Your task to perform on an android device: Open Wikipedia Image 0: 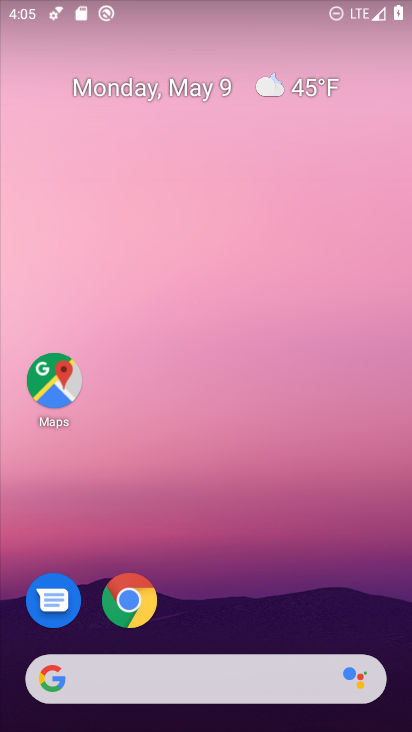
Step 0: drag from (234, 559) to (307, 99)
Your task to perform on an android device: Open Wikipedia Image 1: 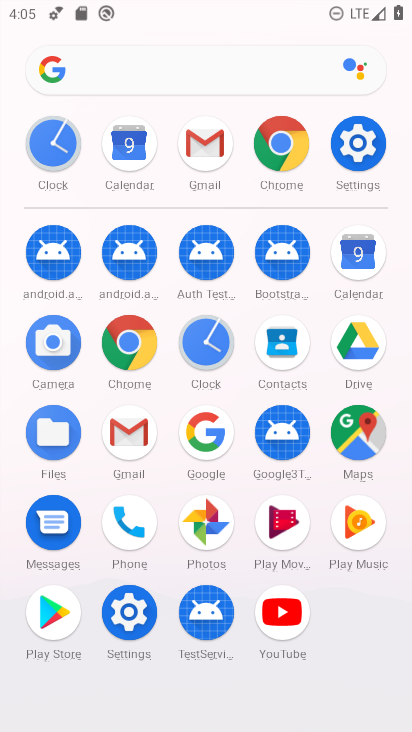
Step 1: click (125, 363)
Your task to perform on an android device: Open Wikipedia Image 2: 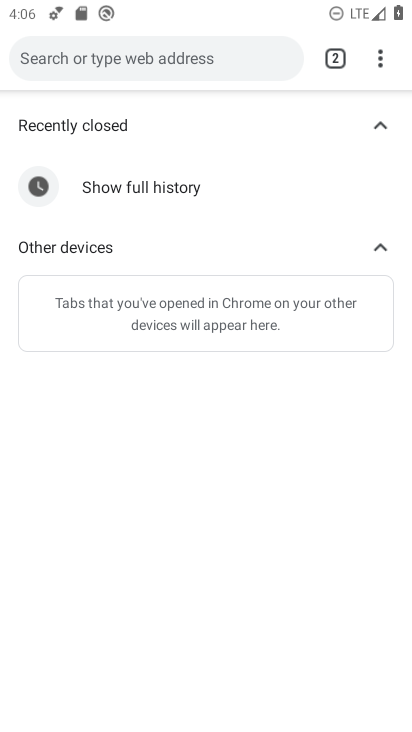
Step 2: click (222, 52)
Your task to perform on an android device: Open Wikipedia Image 3: 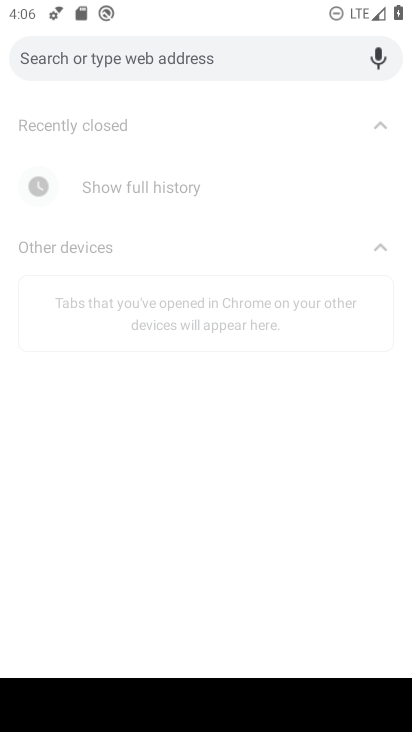
Step 3: type "wikipedia.org"
Your task to perform on an android device: Open Wikipedia Image 4: 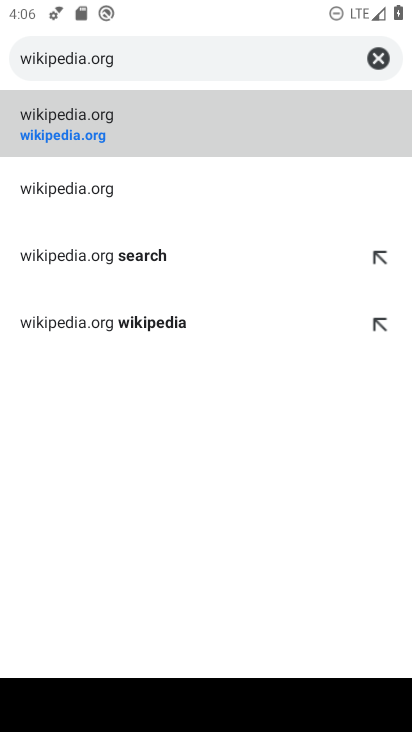
Step 4: click (104, 204)
Your task to perform on an android device: Open Wikipedia Image 5: 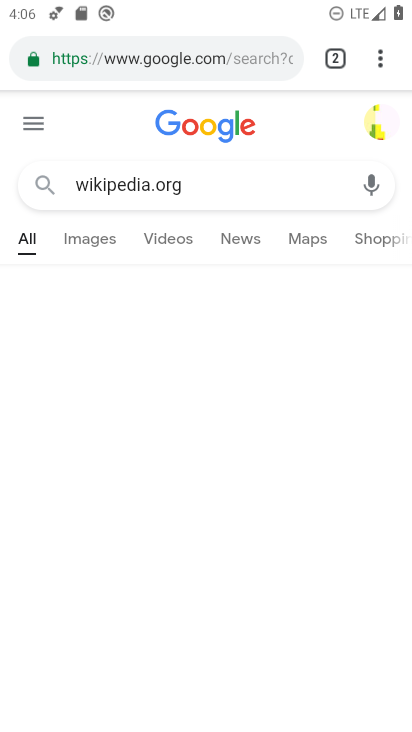
Step 5: task complete